Your task to perform on an android device: set the stopwatch Image 0: 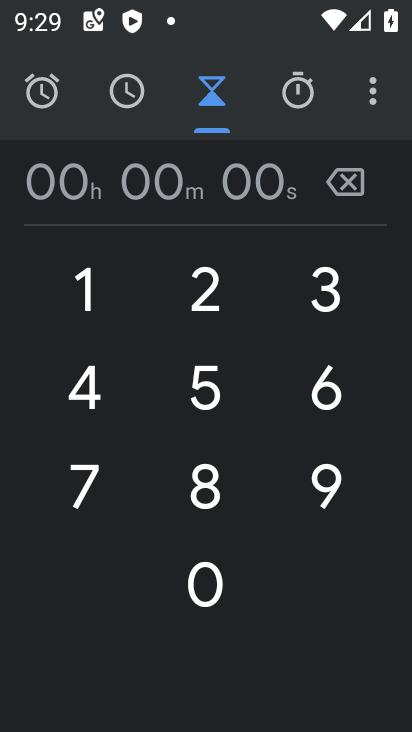
Step 0: click (284, 118)
Your task to perform on an android device: set the stopwatch Image 1: 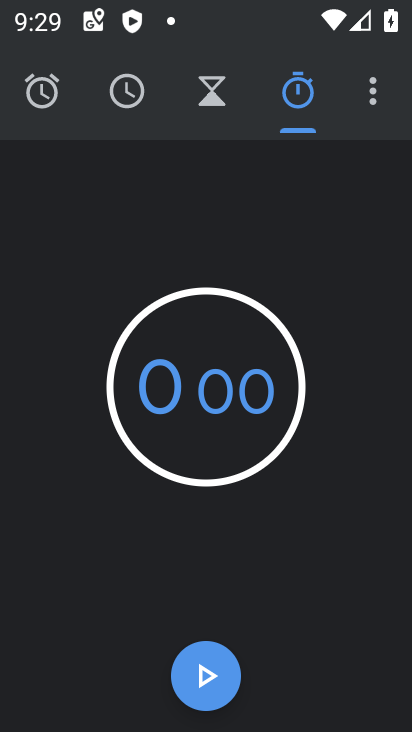
Step 1: task complete